Your task to perform on an android device: turn on priority inbox in the gmail app Image 0: 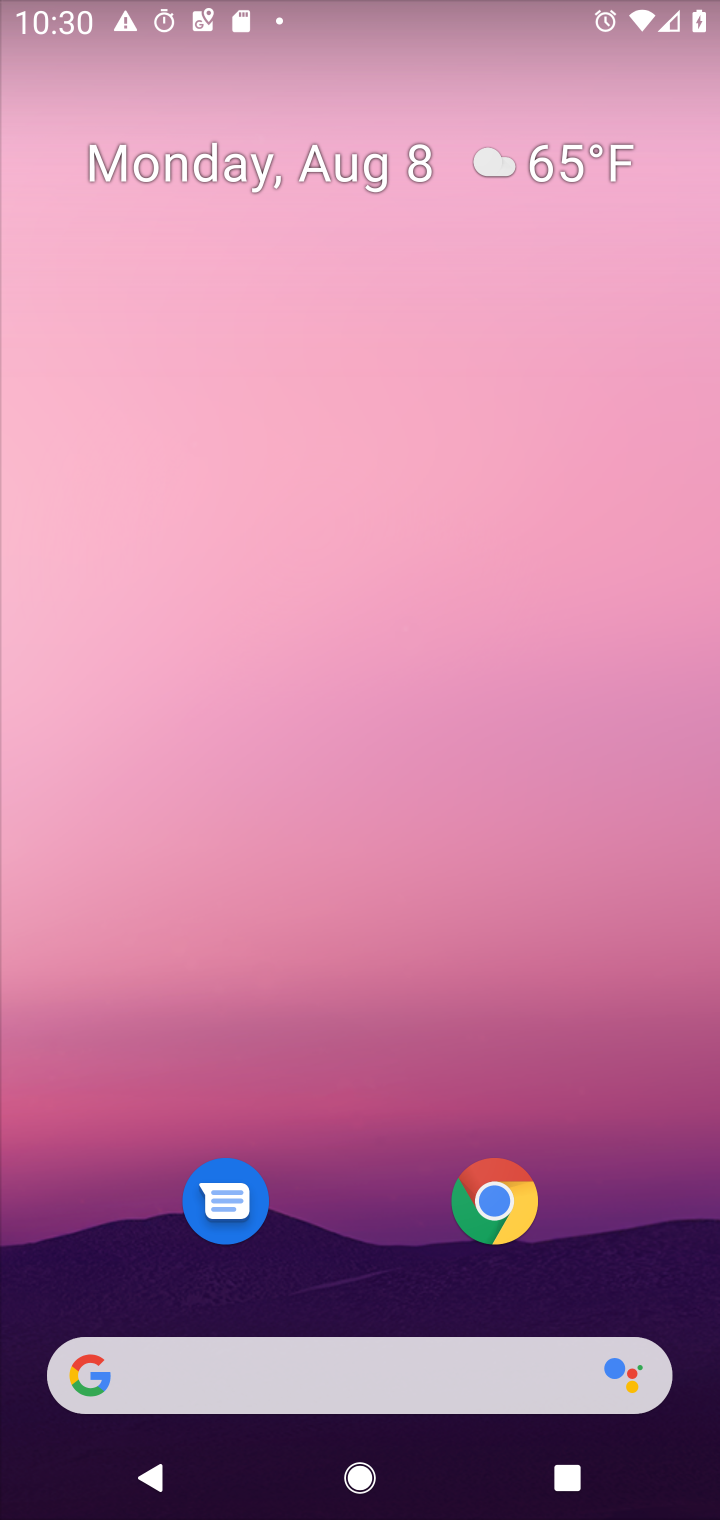
Step 0: press home button
Your task to perform on an android device: turn on priority inbox in the gmail app Image 1: 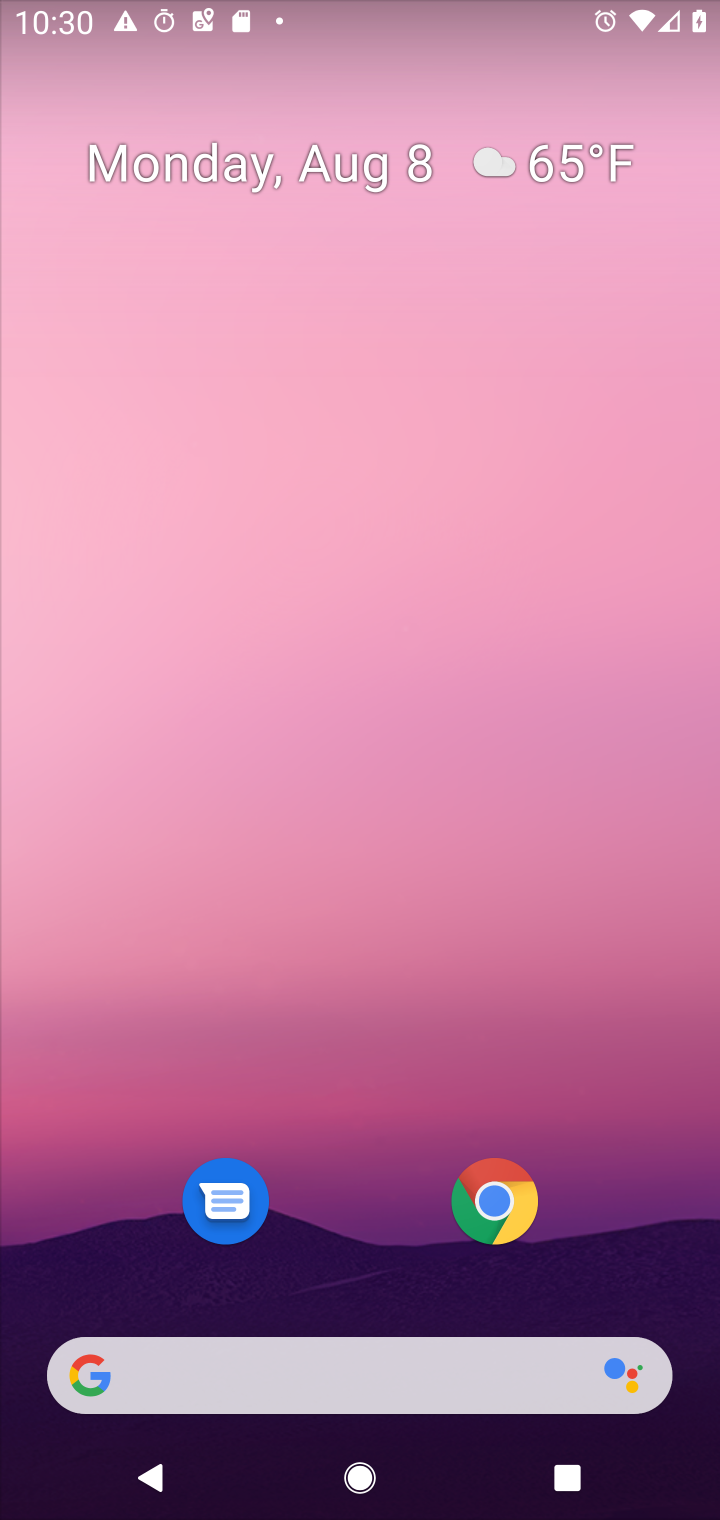
Step 1: drag from (599, 1273) to (651, 550)
Your task to perform on an android device: turn on priority inbox in the gmail app Image 2: 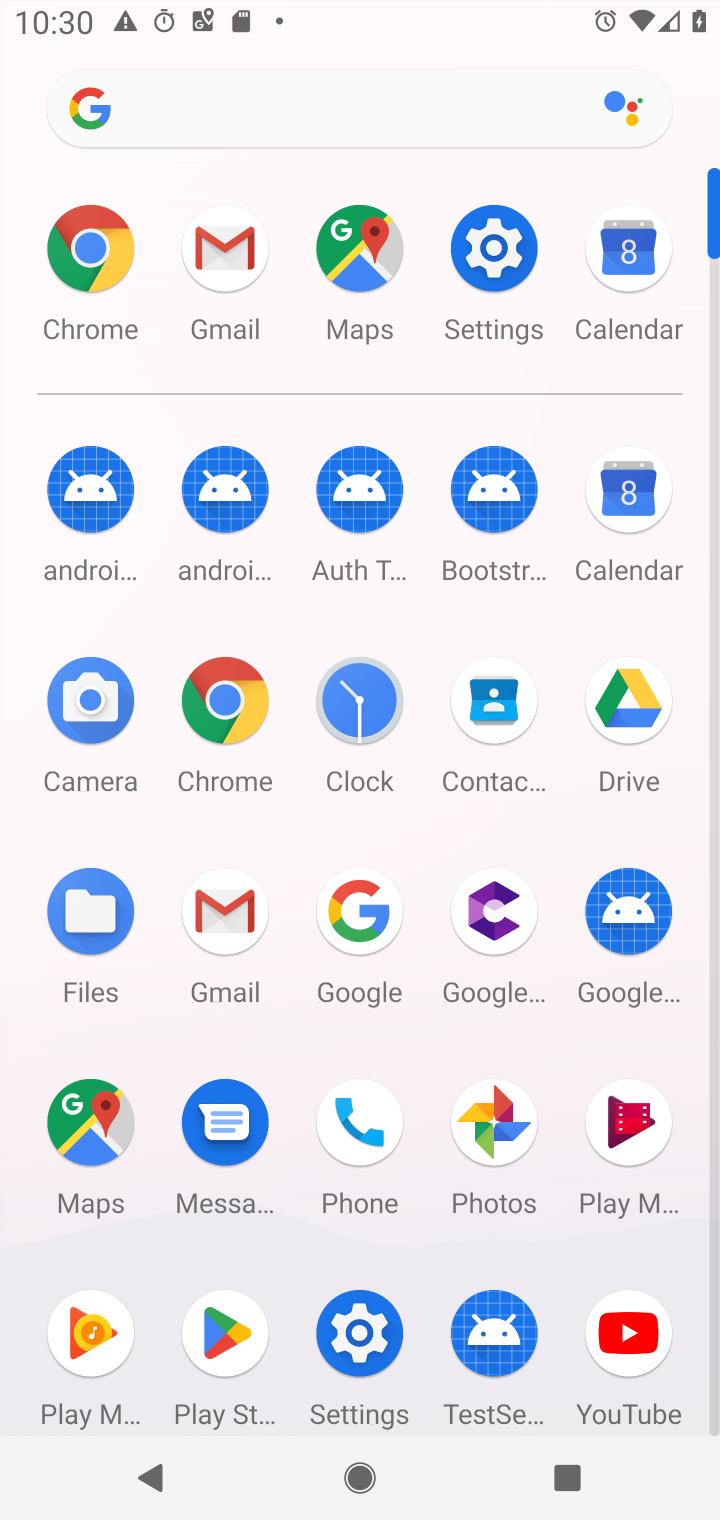
Step 2: click (229, 893)
Your task to perform on an android device: turn on priority inbox in the gmail app Image 3: 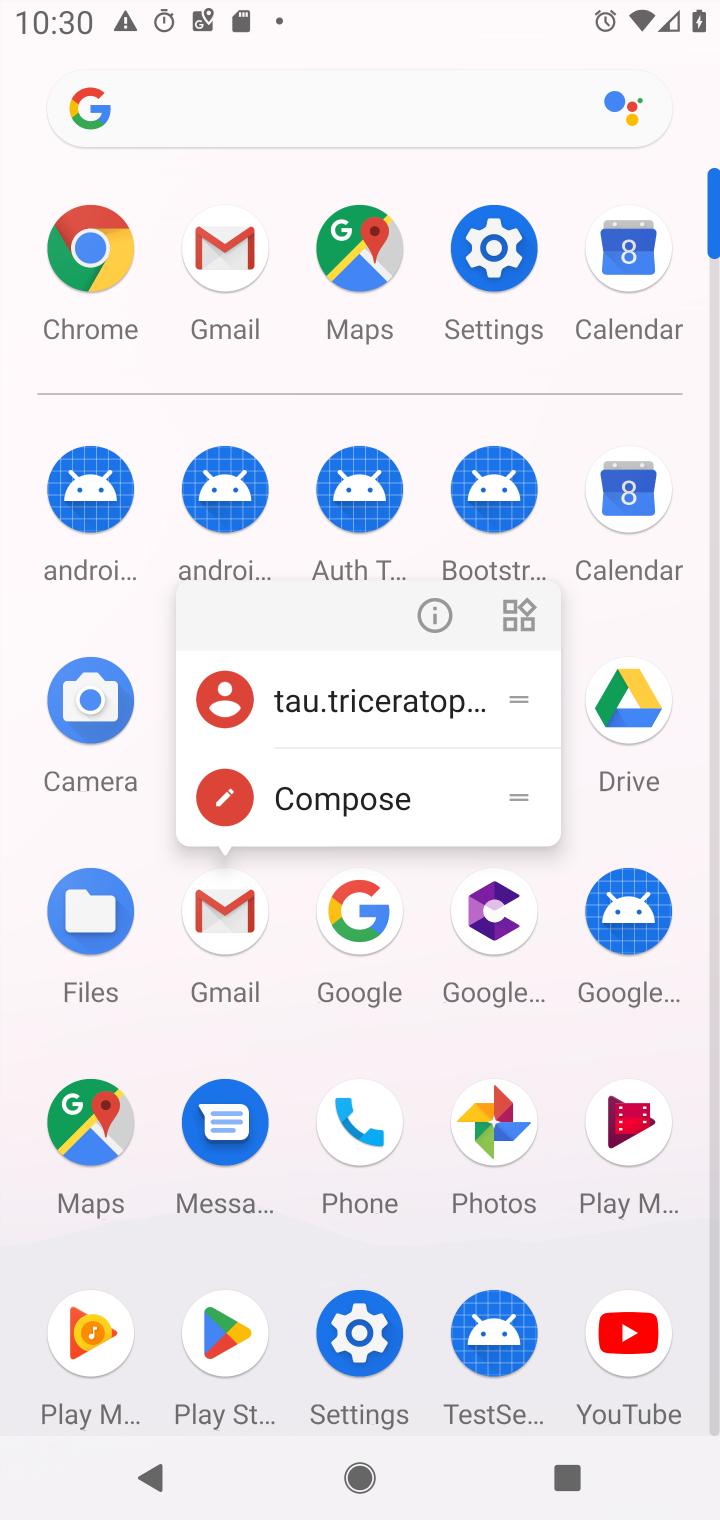
Step 3: click (229, 893)
Your task to perform on an android device: turn on priority inbox in the gmail app Image 4: 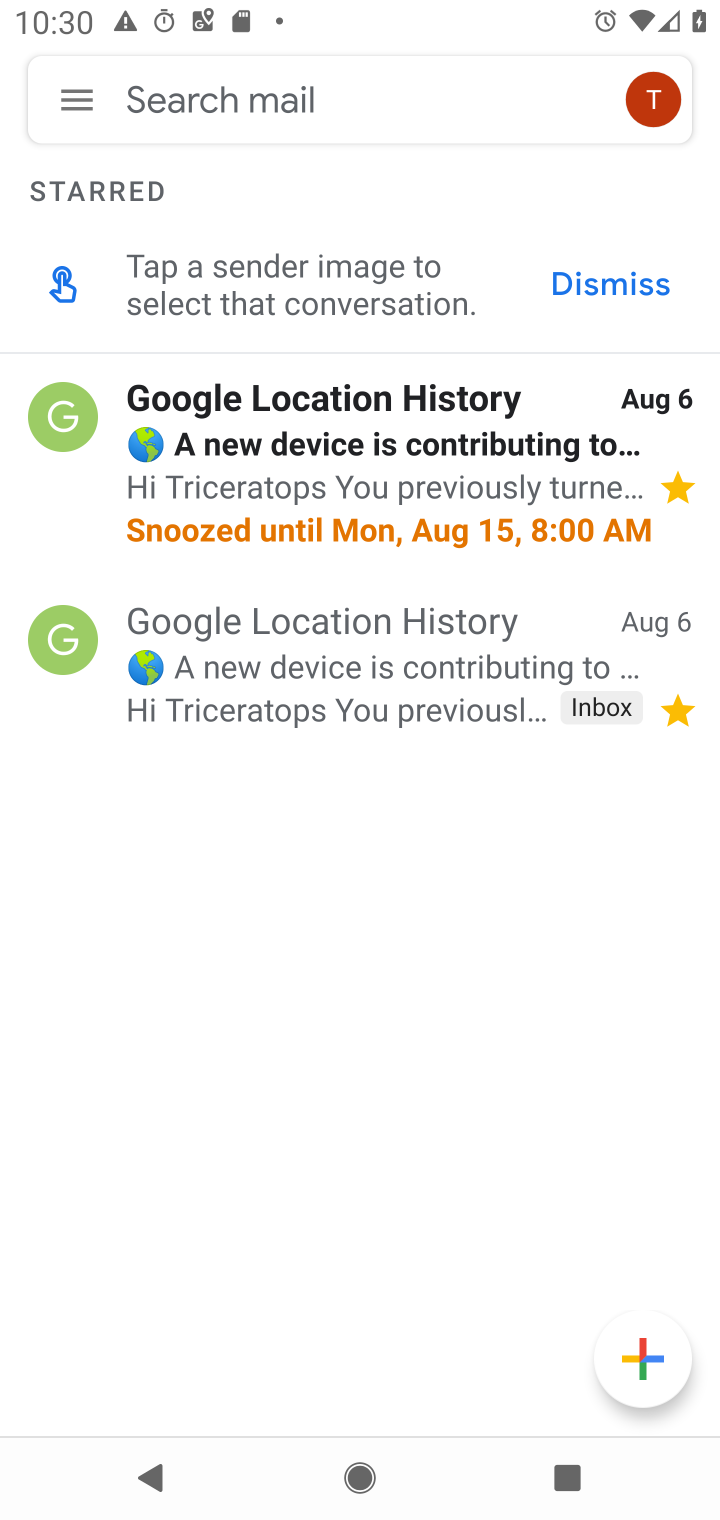
Step 4: click (82, 100)
Your task to perform on an android device: turn on priority inbox in the gmail app Image 5: 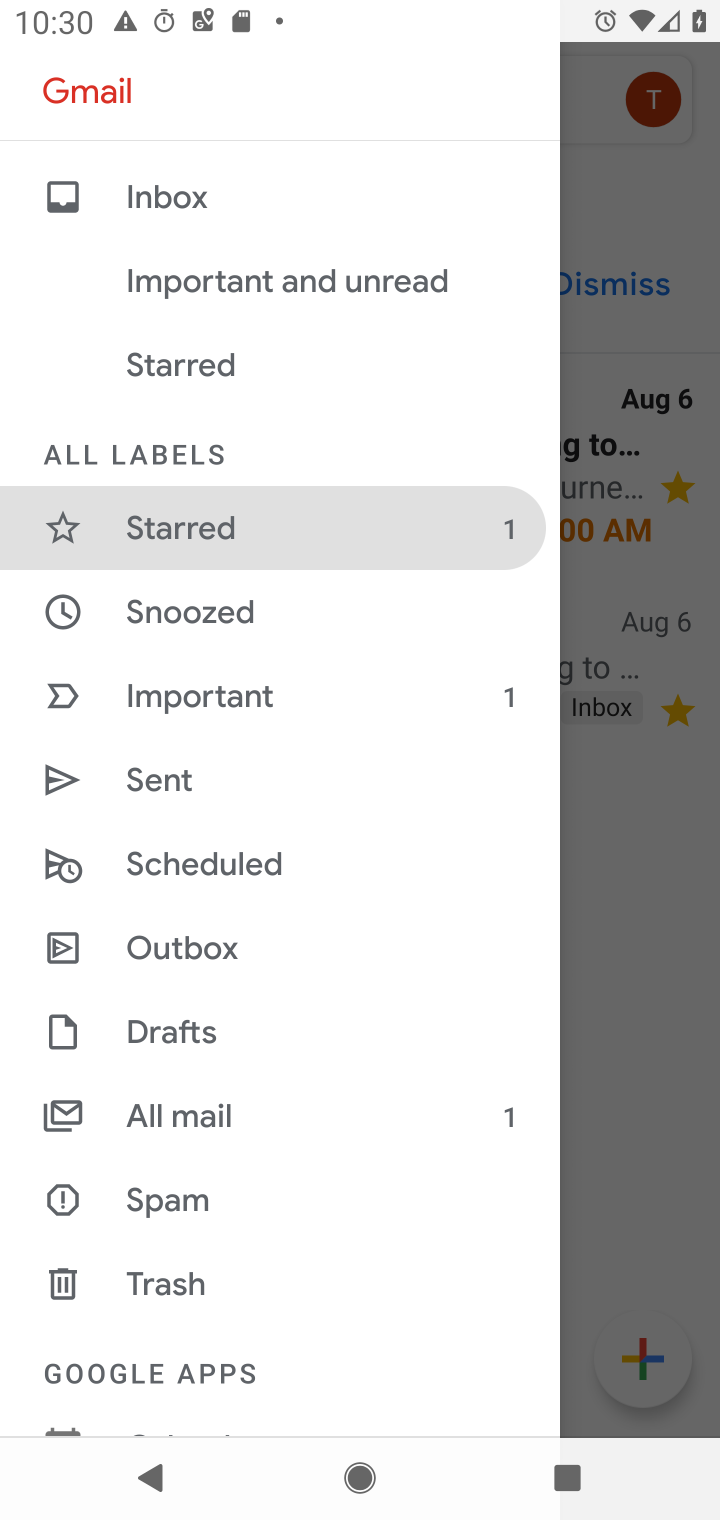
Step 5: drag from (389, 829) to (416, 626)
Your task to perform on an android device: turn on priority inbox in the gmail app Image 6: 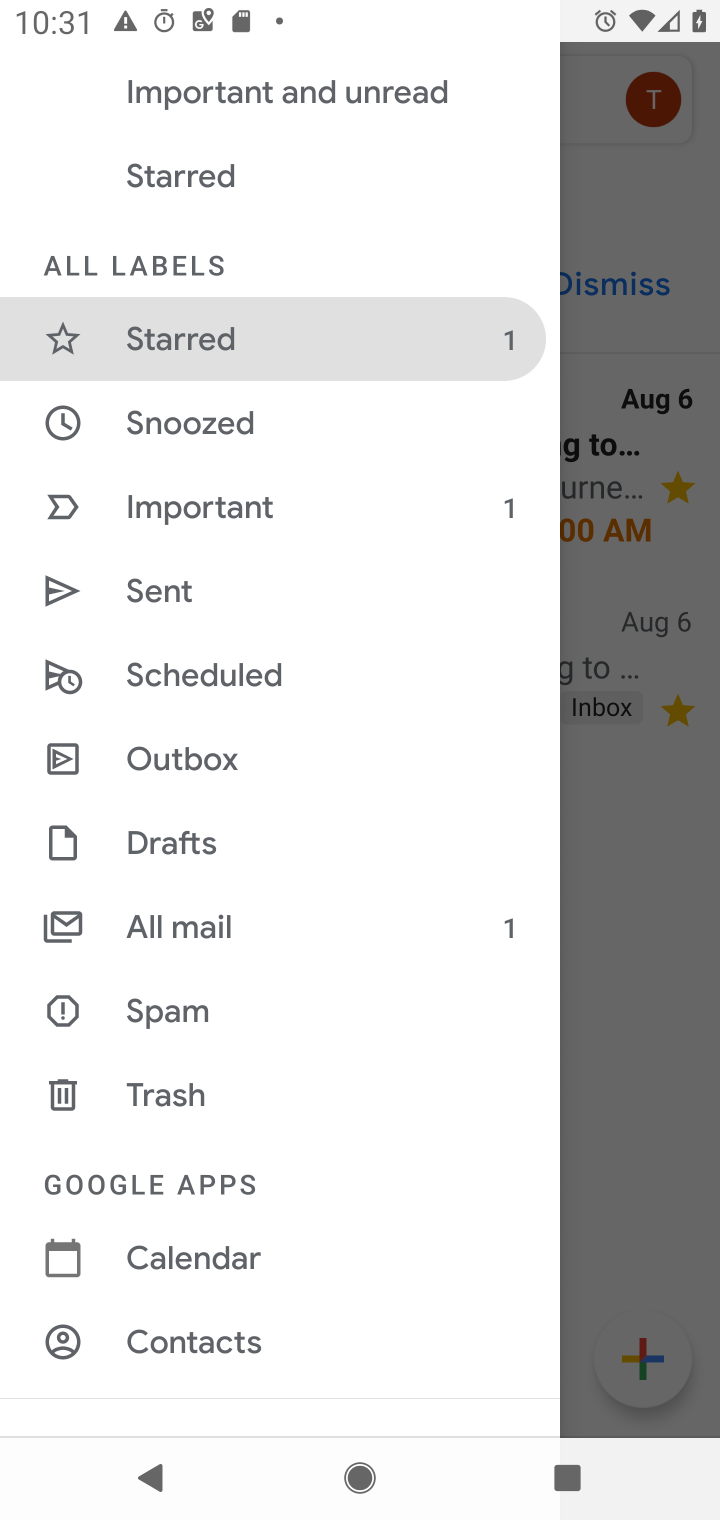
Step 6: drag from (383, 977) to (383, 808)
Your task to perform on an android device: turn on priority inbox in the gmail app Image 7: 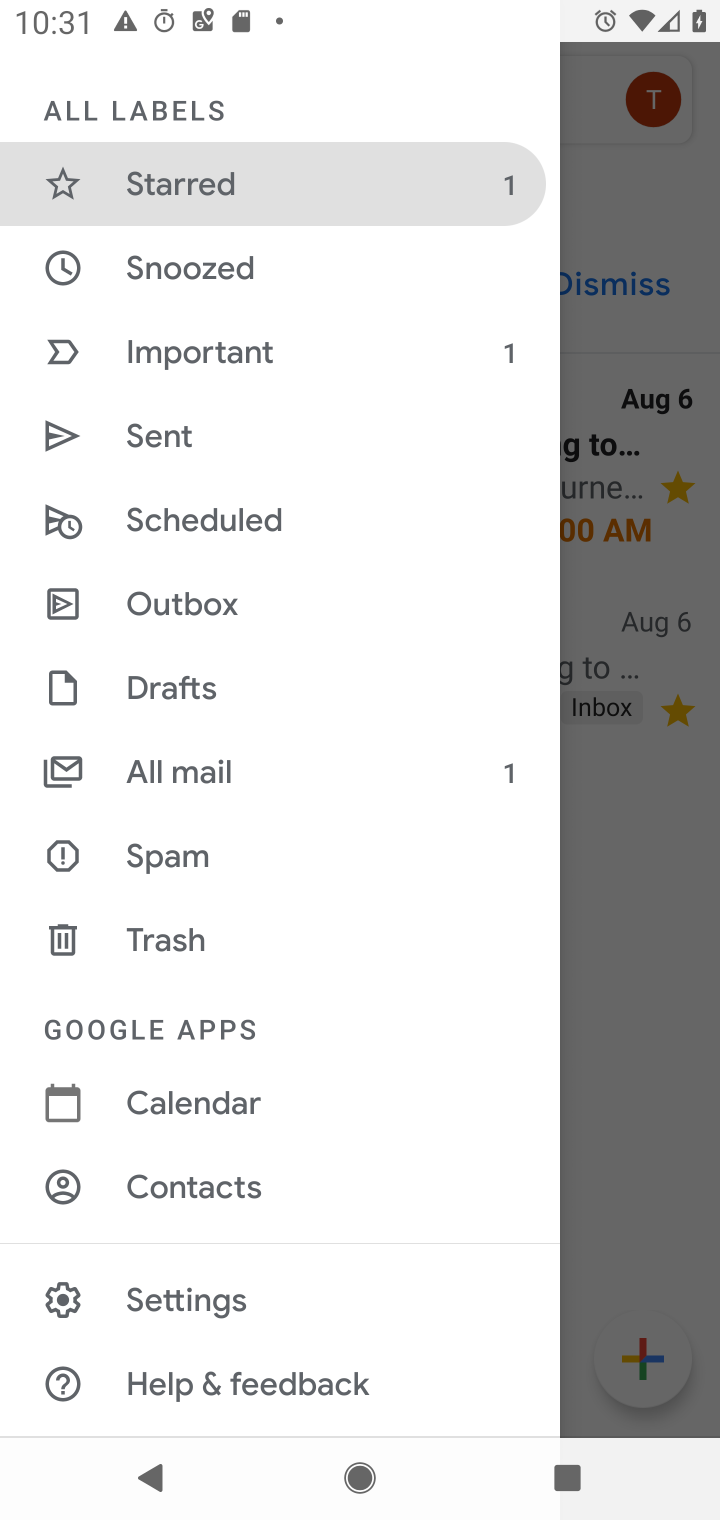
Step 7: click (325, 1286)
Your task to perform on an android device: turn on priority inbox in the gmail app Image 8: 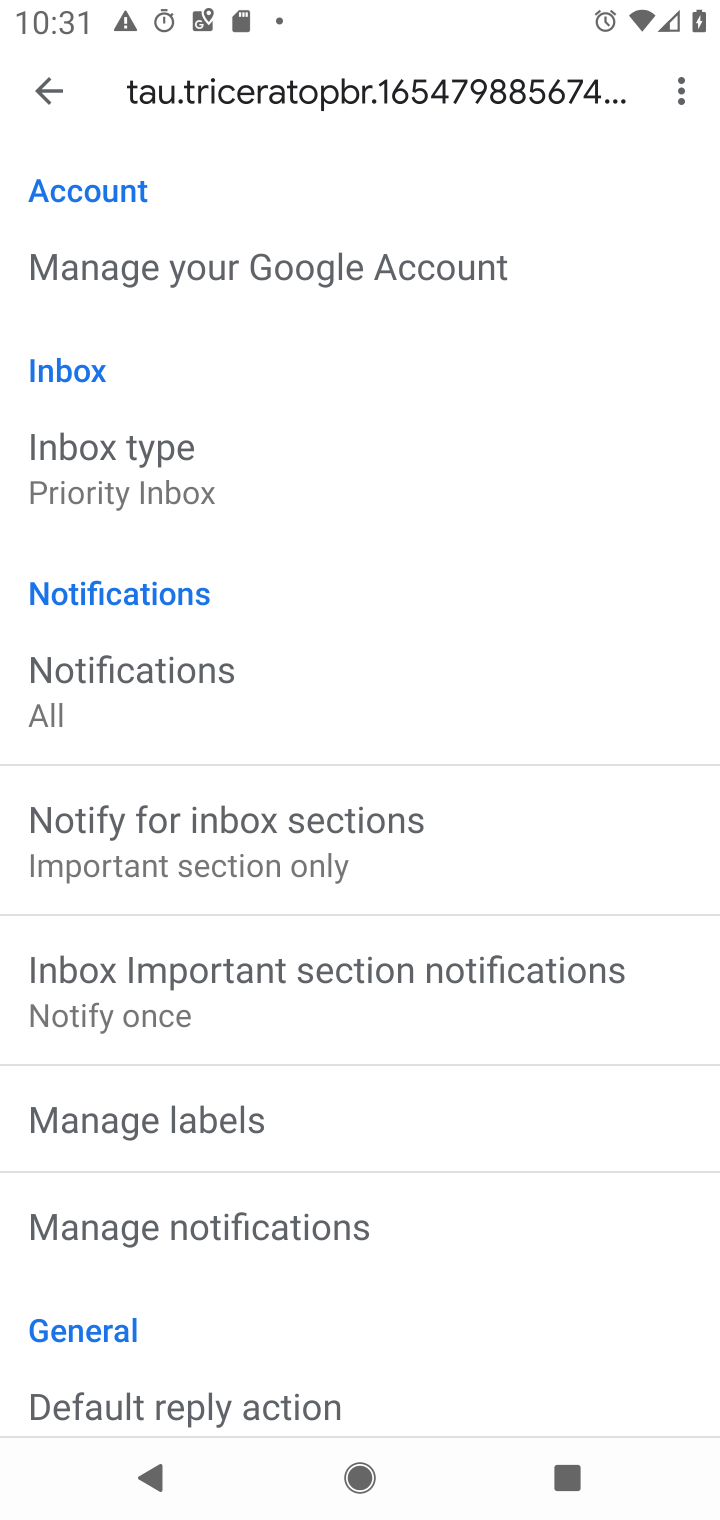
Step 8: task complete